Your task to perform on an android device: check storage Image 0: 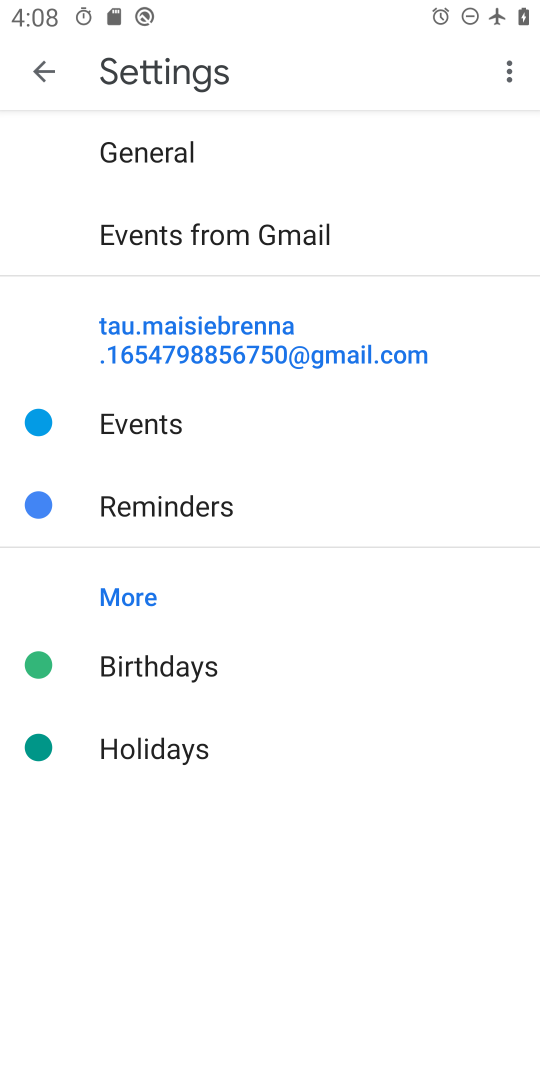
Step 0: press home button
Your task to perform on an android device: check storage Image 1: 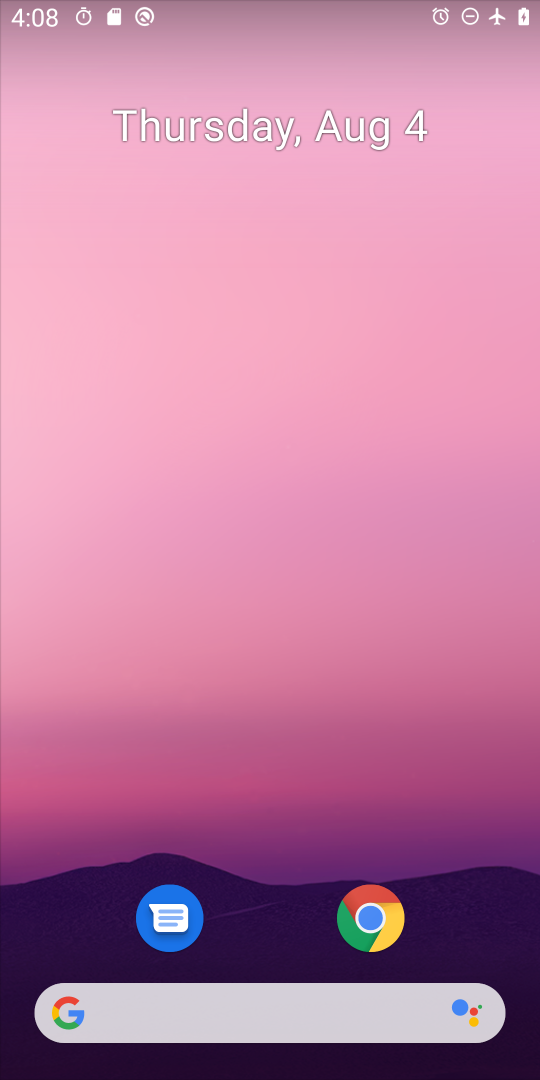
Step 1: drag from (298, 923) to (290, 296)
Your task to perform on an android device: check storage Image 2: 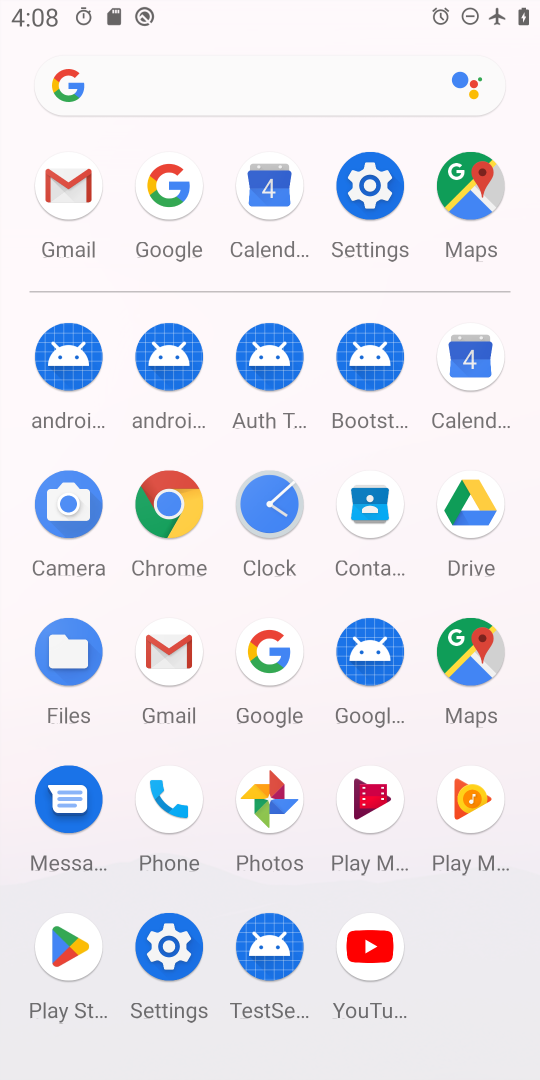
Step 2: click (354, 204)
Your task to perform on an android device: check storage Image 3: 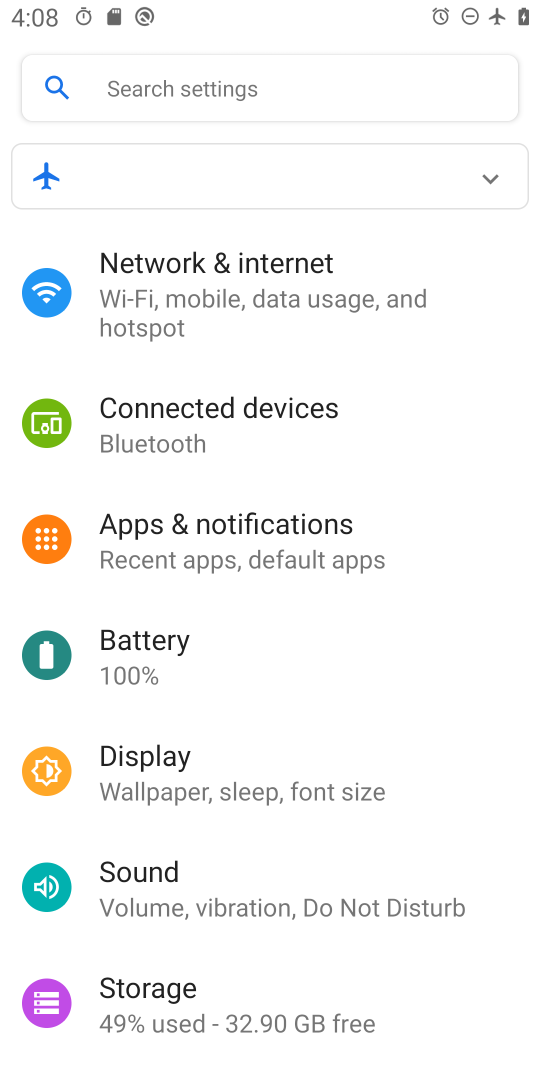
Step 3: click (215, 972)
Your task to perform on an android device: check storage Image 4: 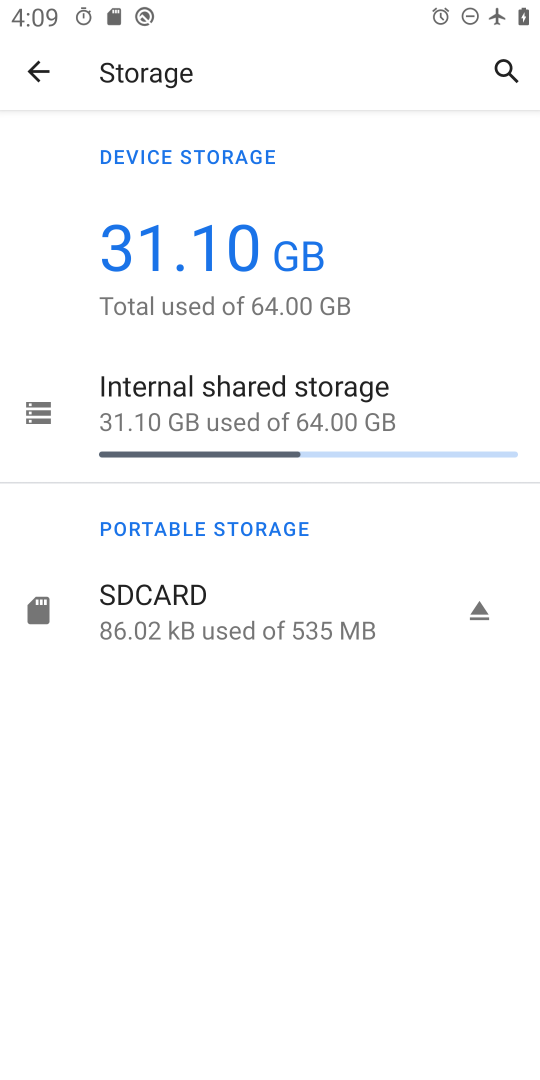
Step 4: click (268, 421)
Your task to perform on an android device: check storage Image 5: 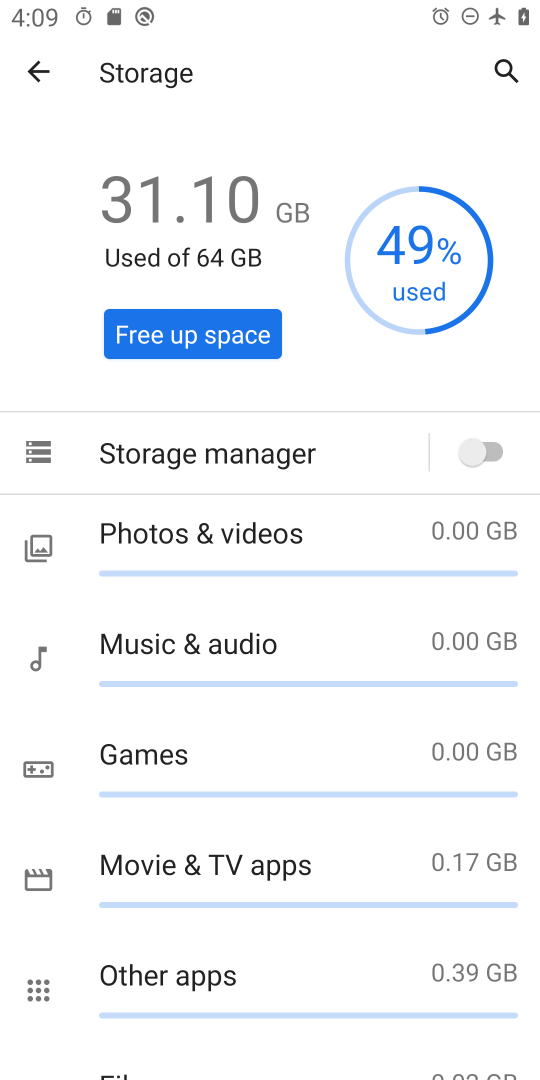
Step 5: task complete